Your task to perform on an android device: Open Chrome and go to settings Image 0: 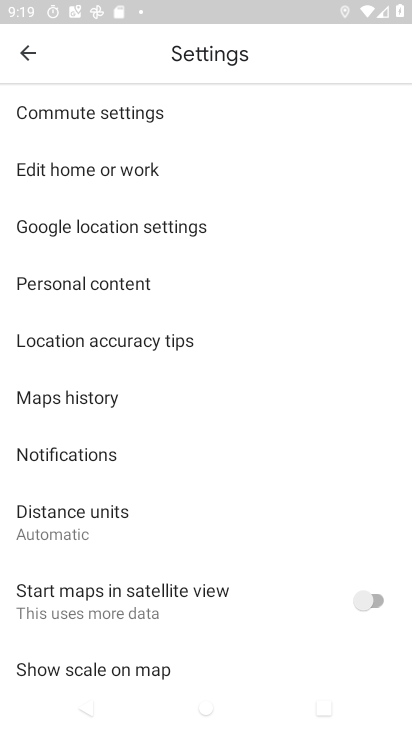
Step 0: task complete